Your task to perform on an android device: Search for Italian restaurants on Maps Image 0: 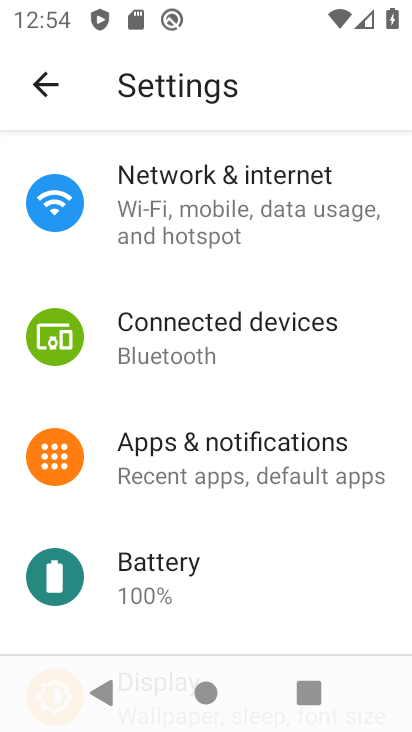
Step 0: press home button
Your task to perform on an android device: Search for Italian restaurants on Maps Image 1: 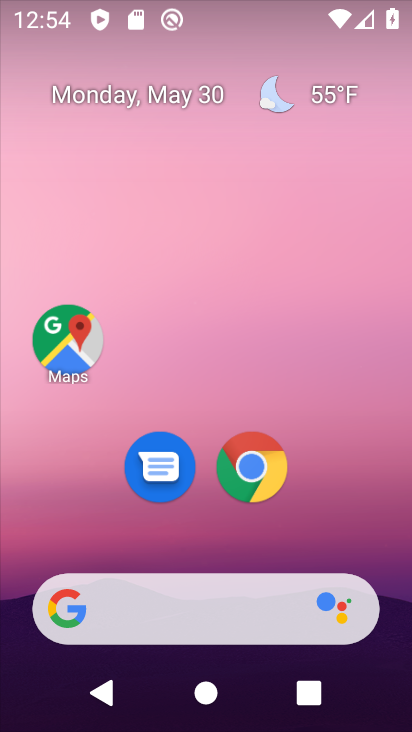
Step 1: click (52, 362)
Your task to perform on an android device: Search for Italian restaurants on Maps Image 2: 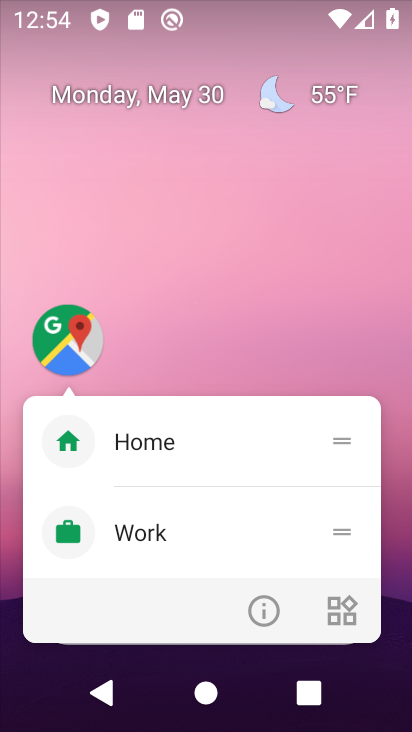
Step 2: click (76, 352)
Your task to perform on an android device: Search for Italian restaurants on Maps Image 3: 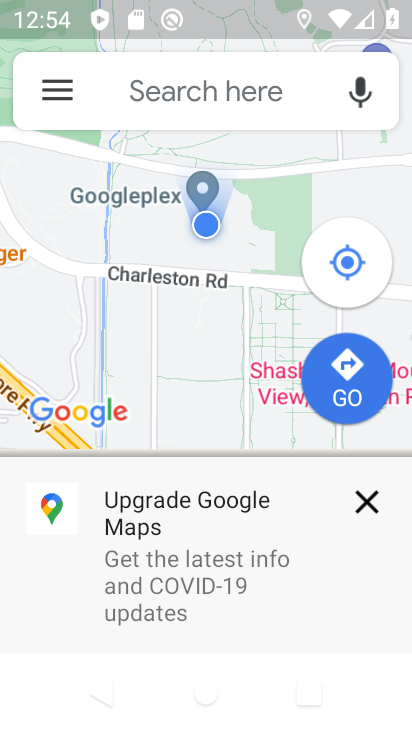
Step 3: click (228, 99)
Your task to perform on an android device: Search for Italian restaurants on Maps Image 4: 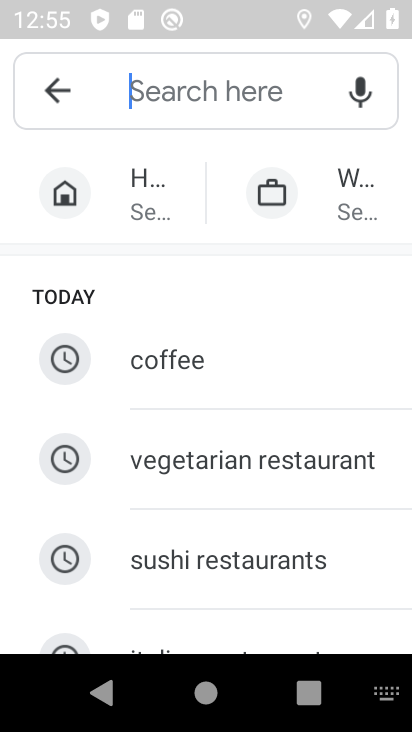
Step 4: drag from (354, 564) to (318, 259)
Your task to perform on an android device: Search for Italian restaurants on Maps Image 5: 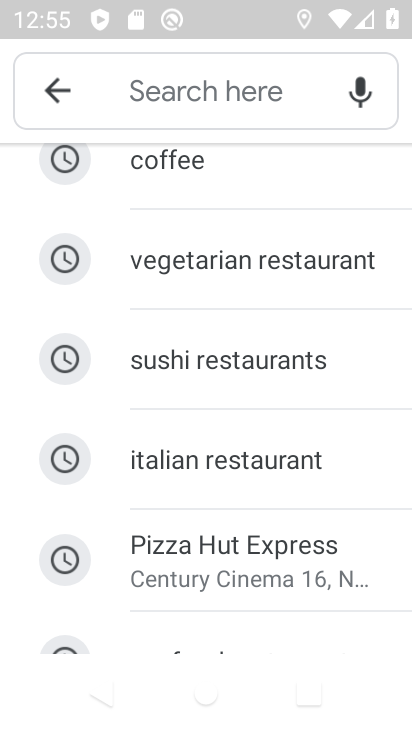
Step 5: click (262, 456)
Your task to perform on an android device: Search for Italian restaurants on Maps Image 6: 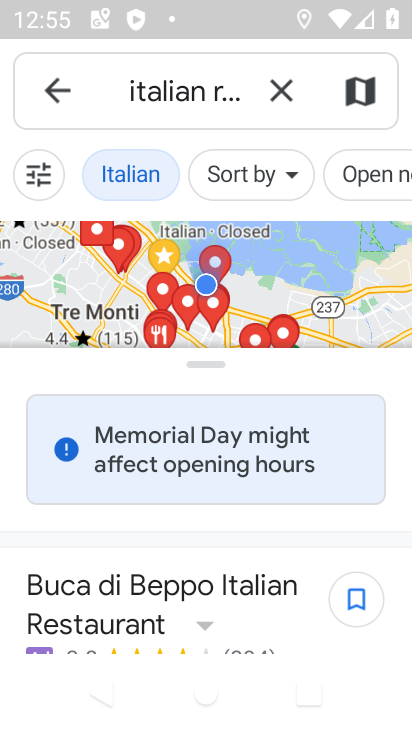
Step 6: task complete